Your task to perform on an android device: open app "DuckDuckGo Privacy Browser" (install if not already installed) Image 0: 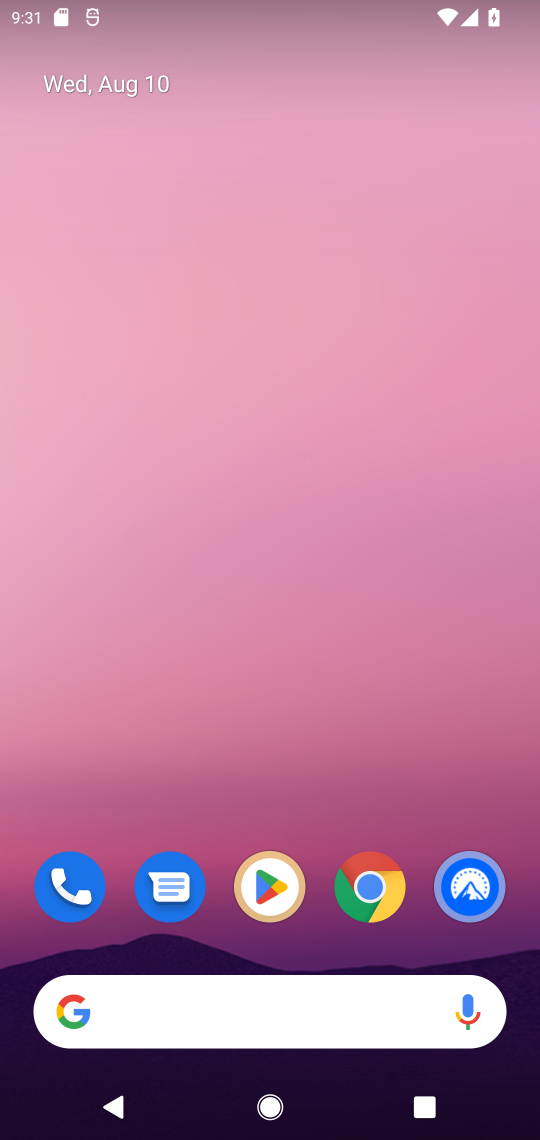
Step 0: click (287, 916)
Your task to perform on an android device: open app "DuckDuckGo Privacy Browser" (install if not already installed) Image 1: 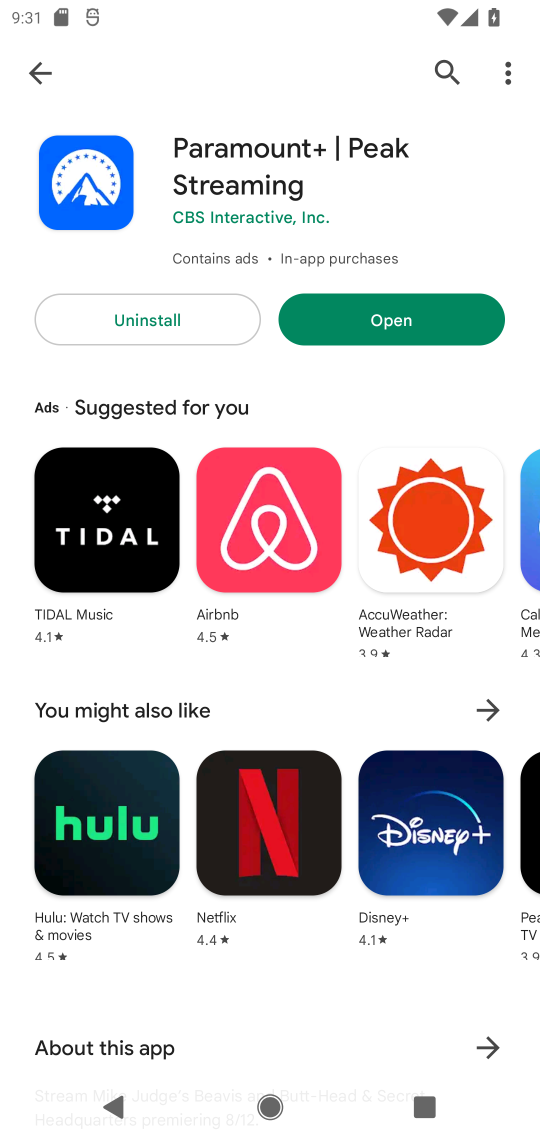
Step 1: click (452, 73)
Your task to perform on an android device: open app "DuckDuckGo Privacy Browser" (install if not already installed) Image 2: 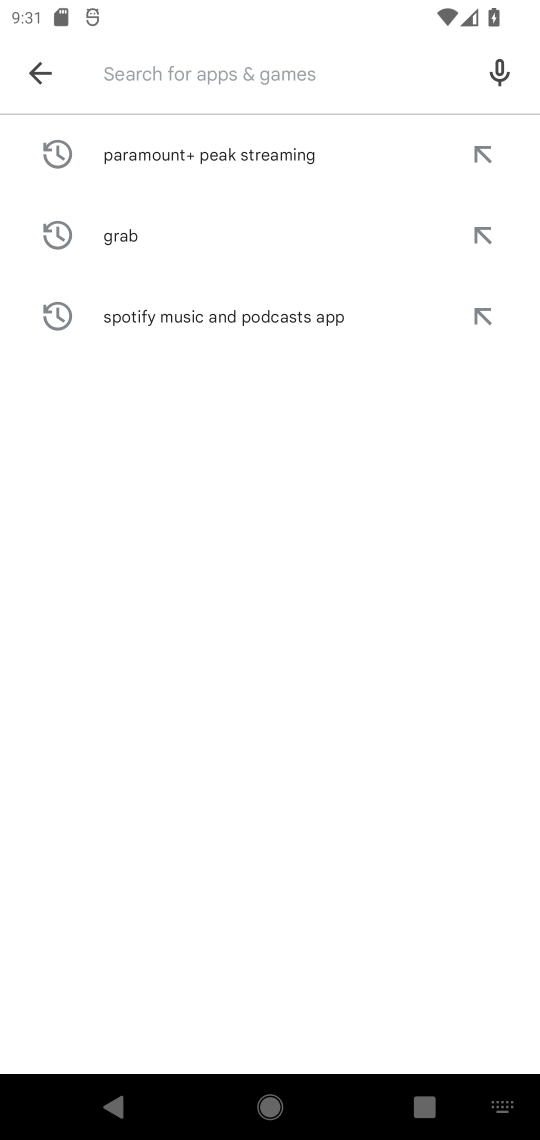
Step 2: type "DuckDuckGo Privacy Browser"
Your task to perform on an android device: open app "DuckDuckGo Privacy Browser" (install if not already installed) Image 3: 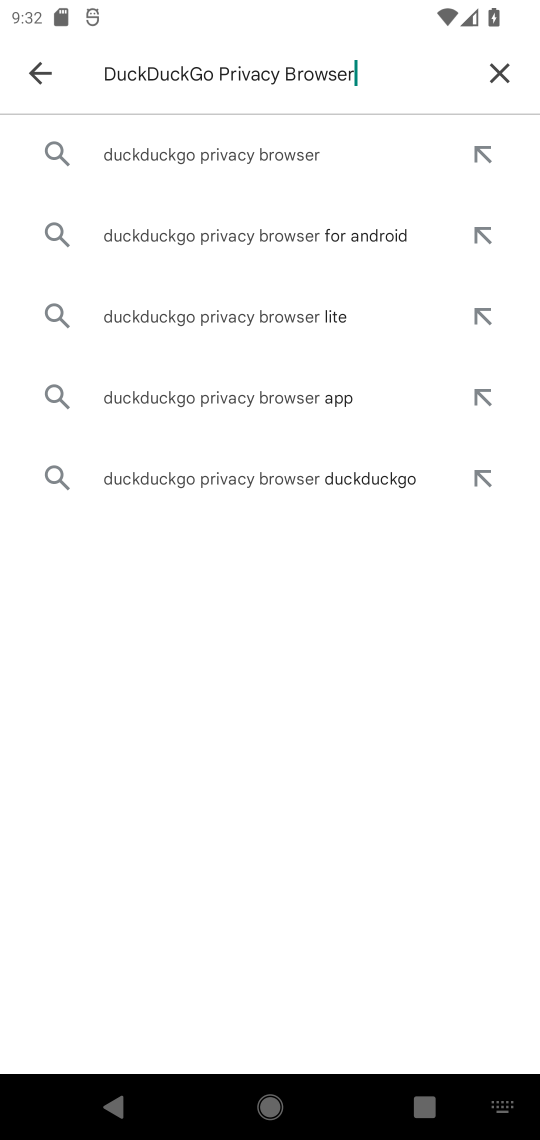
Step 3: click (269, 147)
Your task to perform on an android device: open app "DuckDuckGo Privacy Browser" (install if not already installed) Image 4: 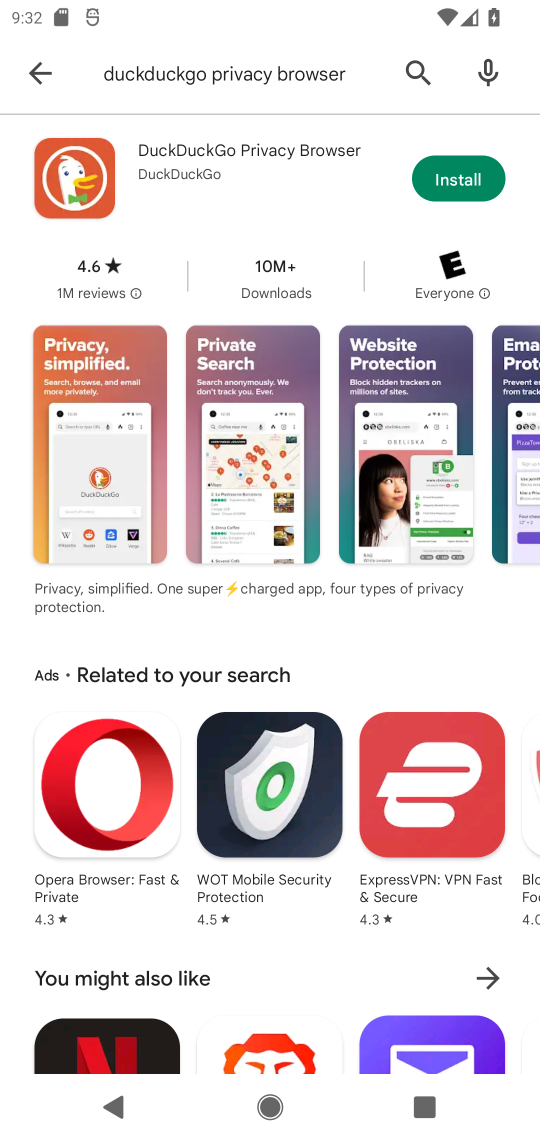
Step 4: click (448, 184)
Your task to perform on an android device: open app "DuckDuckGo Privacy Browser" (install if not already installed) Image 5: 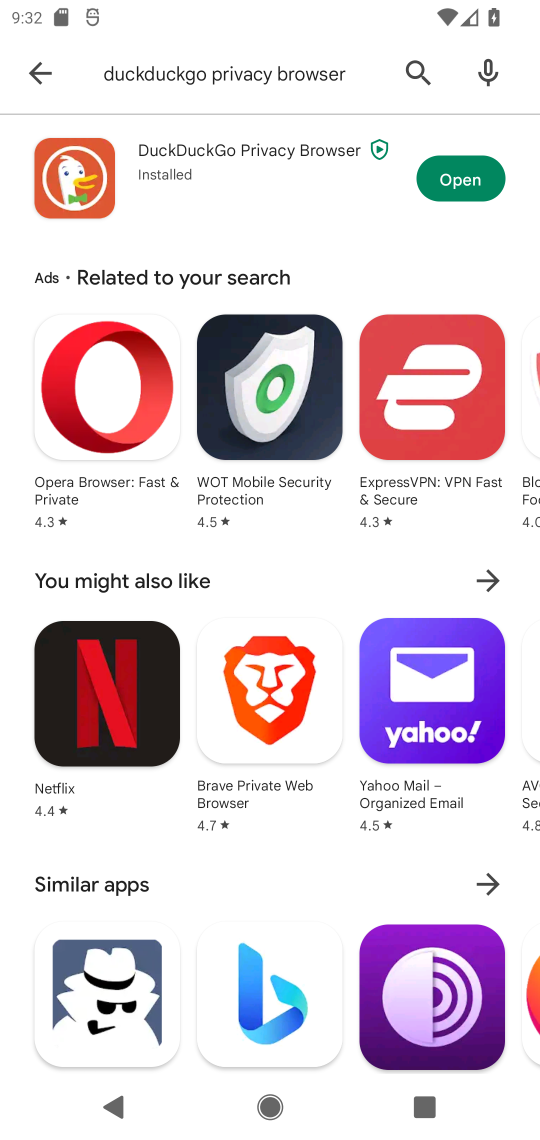
Step 5: click (441, 183)
Your task to perform on an android device: open app "DuckDuckGo Privacy Browser" (install if not already installed) Image 6: 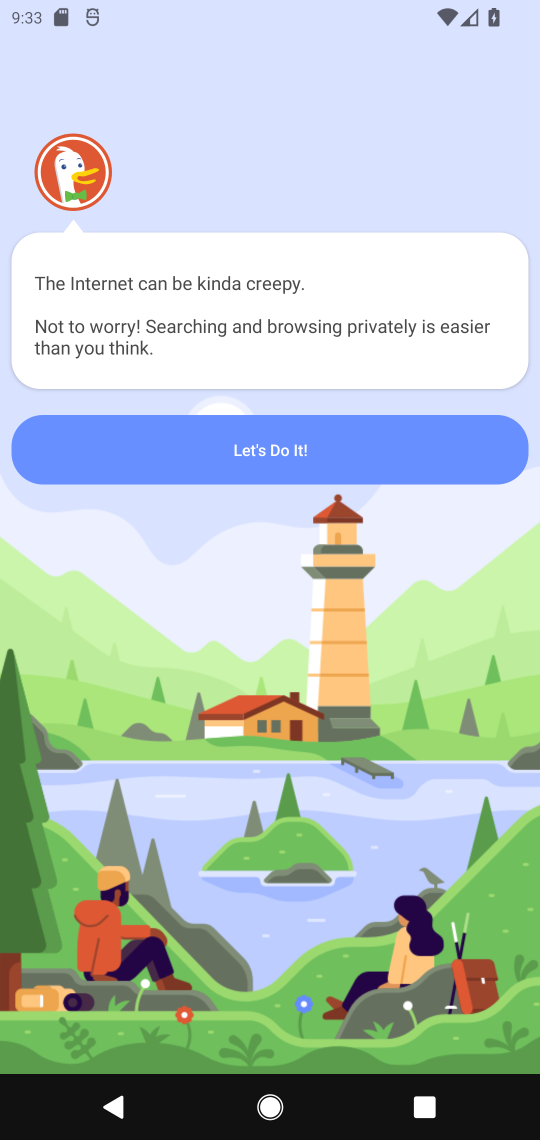
Step 6: task complete